Your task to perform on an android device: remove spam from my inbox in the gmail app Image 0: 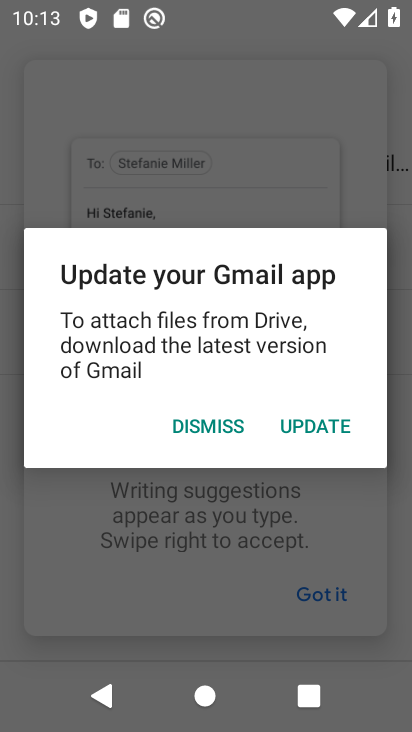
Step 0: press home button
Your task to perform on an android device: remove spam from my inbox in the gmail app Image 1: 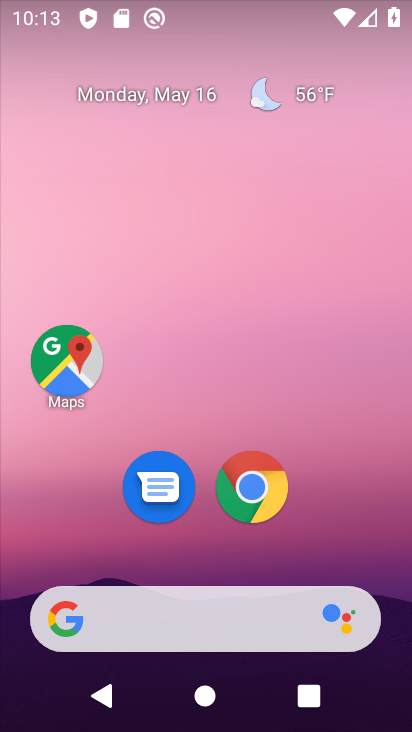
Step 1: click (243, 31)
Your task to perform on an android device: remove spam from my inbox in the gmail app Image 2: 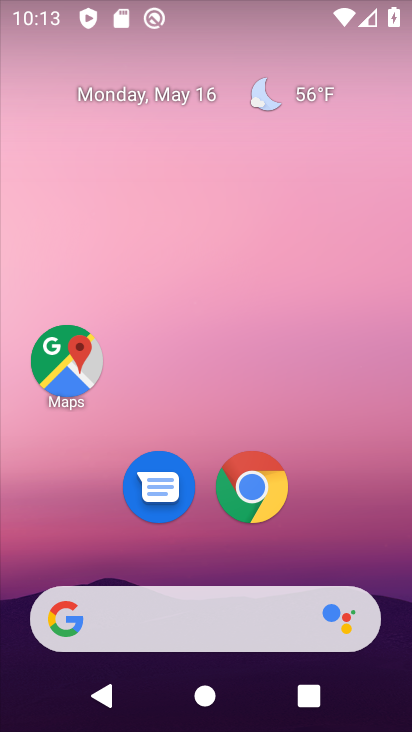
Step 2: drag from (251, 419) to (196, 10)
Your task to perform on an android device: remove spam from my inbox in the gmail app Image 3: 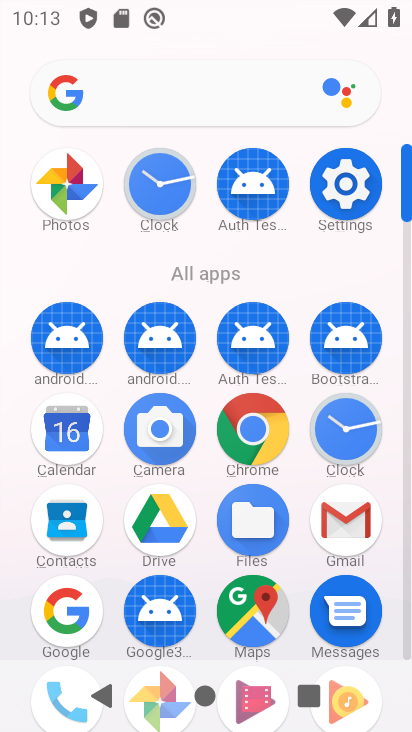
Step 3: click (348, 515)
Your task to perform on an android device: remove spam from my inbox in the gmail app Image 4: 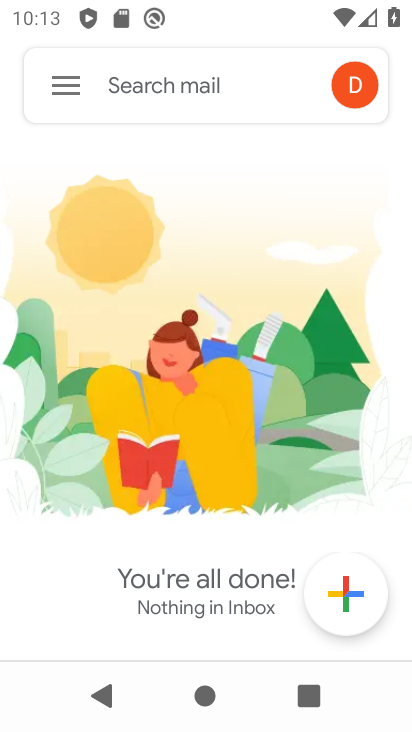
Step 4: click (54, 84)
Your task to perform on an android device: remove spam from my inbox in the gmail app Image 5: 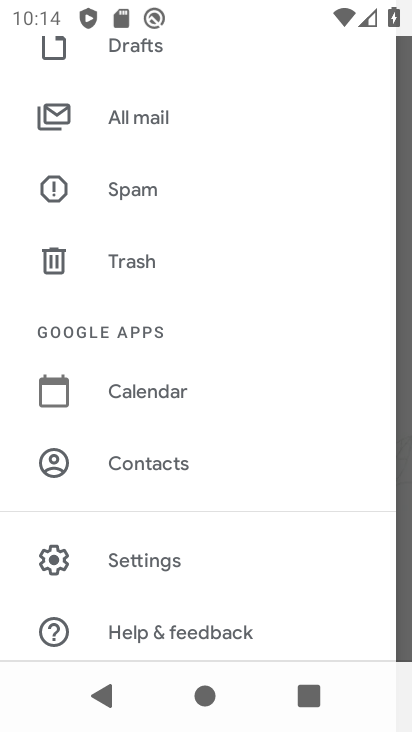
Step 5: click (135, 190)
Your task to perform on an android device: remove spam from my inbox in the gmail app Image 6: 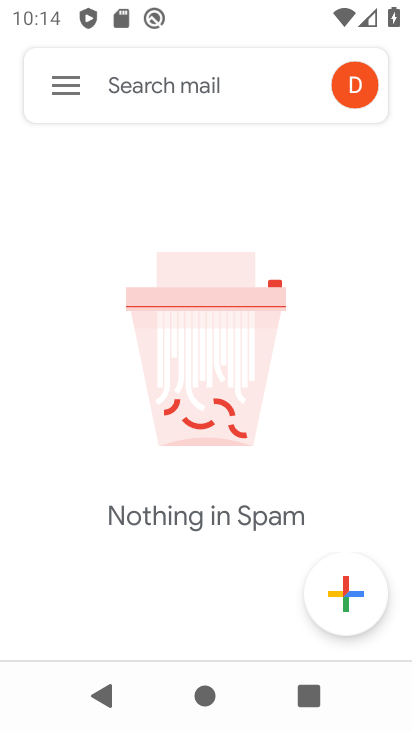
Step 6: task complete